Your task to perform on an android device: toggle improve location accuracy Image 0: 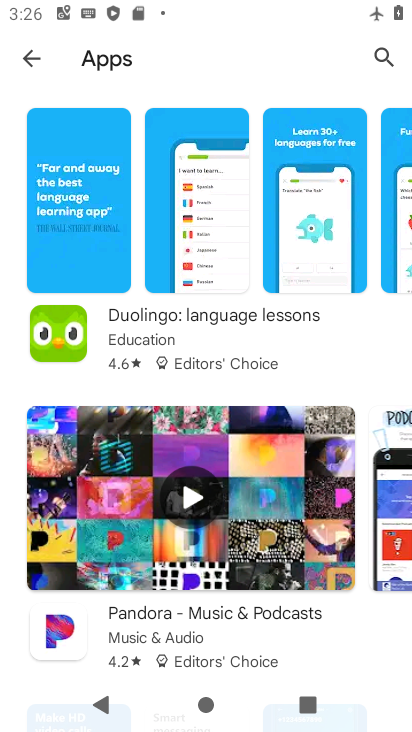
Step 0: press home button
Your task to perform on an android device: toggle improve location accuracy Image 1: 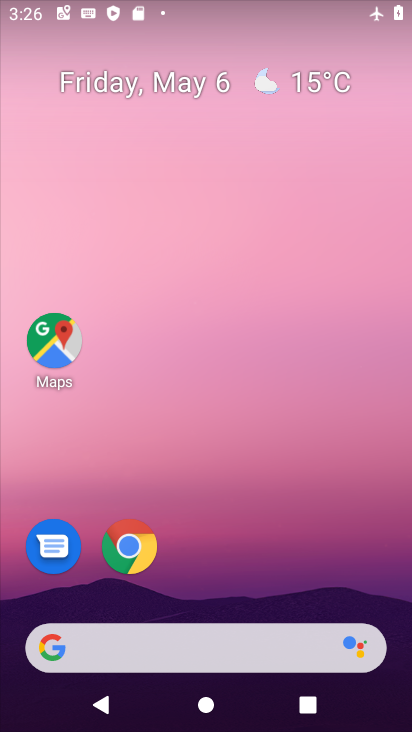
Step 1: drag from (230, 579) to (192, 96)
Your task to perform on an android device: toggle improve location accuracy Image 2: 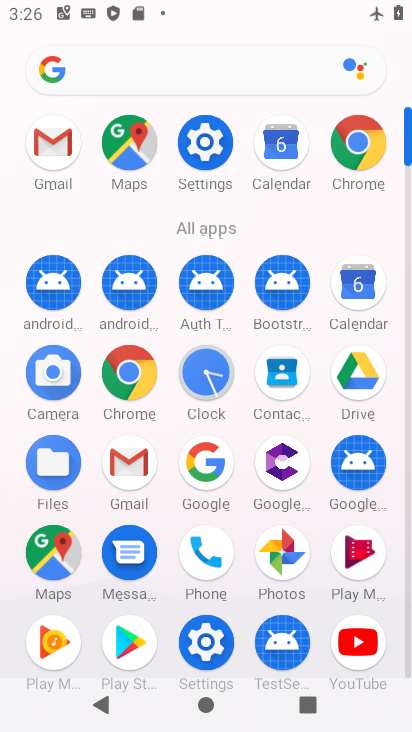
Step 2: click (198, 637)
Your task to perform on an android device: toggle improve location accuracy Image 3: 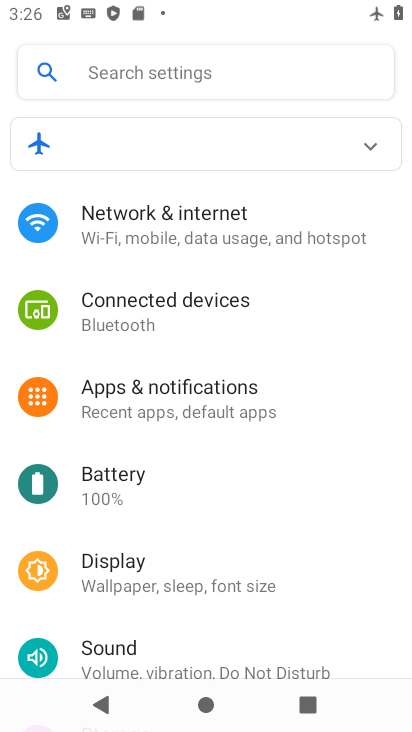
Step 3: drag from (230, 505) to (231, 265)
Your task to perform on an android device: toggle improve location accuracy Image 4: 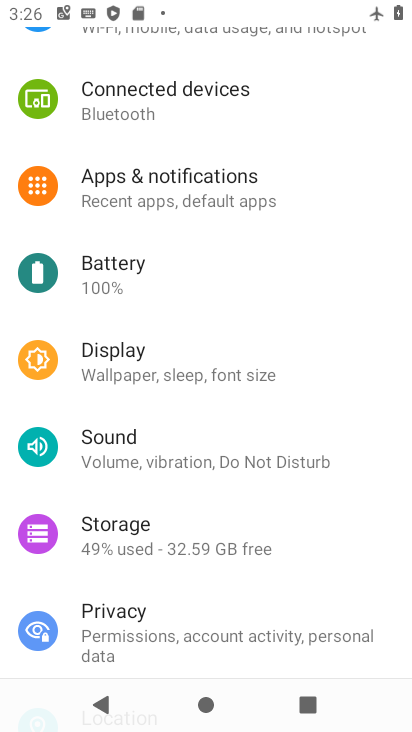
Step 4: drag from (267, 581) to (245, 219)
Your task to perform on an android device: toggle improve location accuracy Image 5: 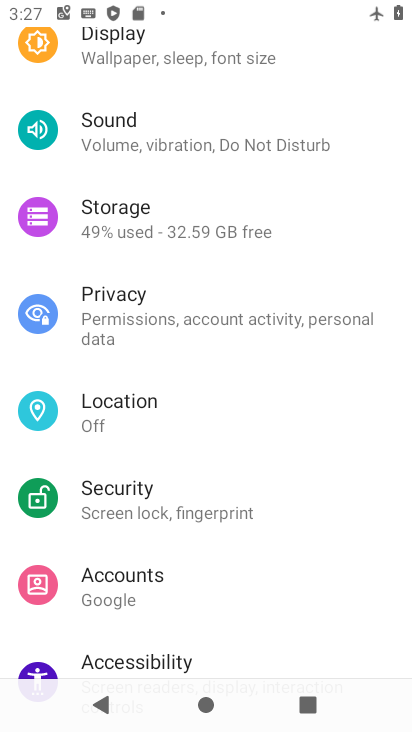
Step 5: click (239, 404)
Your task to perform on an android device: toggle improve location accuracy Image 6: 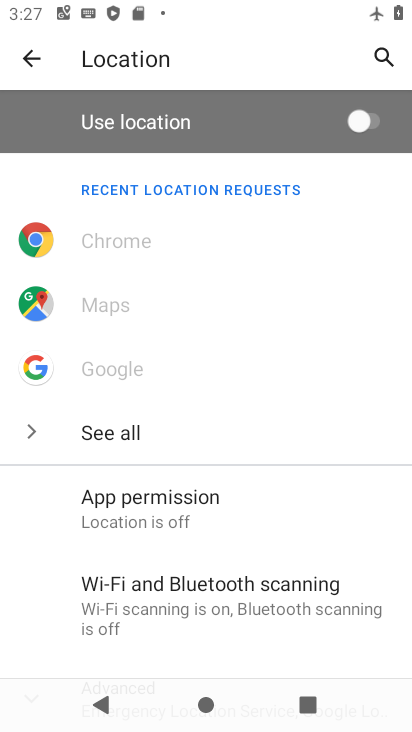
Step 6: drag from (260, 568) to (224, 205)
Your task to perform on an android device: toggle improve location accuracy Image 7: 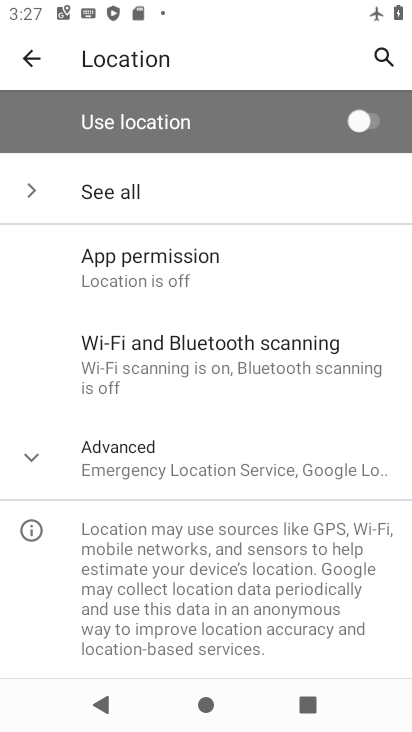
Step 7: click (288, 462)
Your task to perform on an android device: toggle improve location accuracy Image 8: 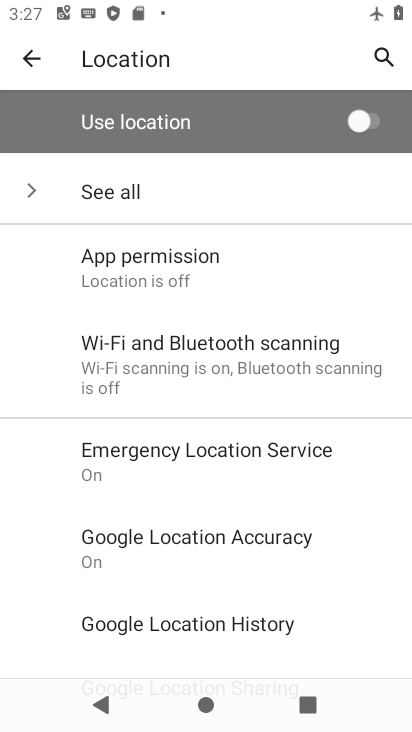
Step 8: drag from (336, 584) to (314, 273)
Your task to perform on an android device: toggle improve location accuracy Image 9: 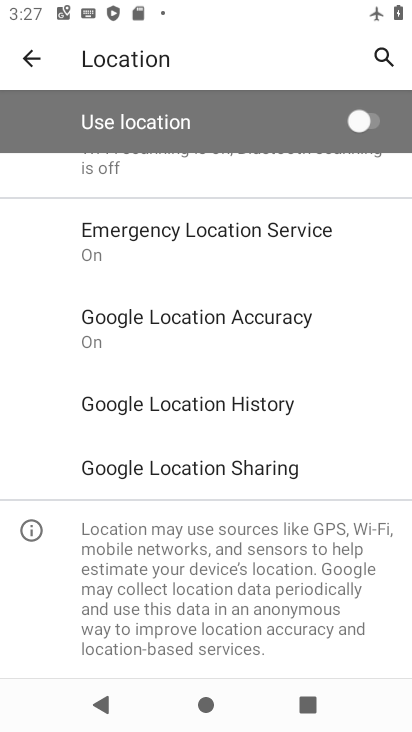
Step 9: click (318, 323)
Your task to perform on an android device: toggle improve location accuracy Image 10: 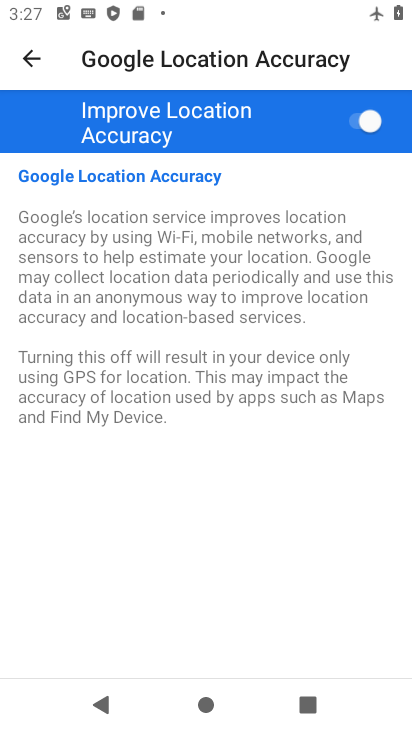
Step 10: click (360, 135)
Your task to perform on an android device: toggle improve location accuracy Image 11: 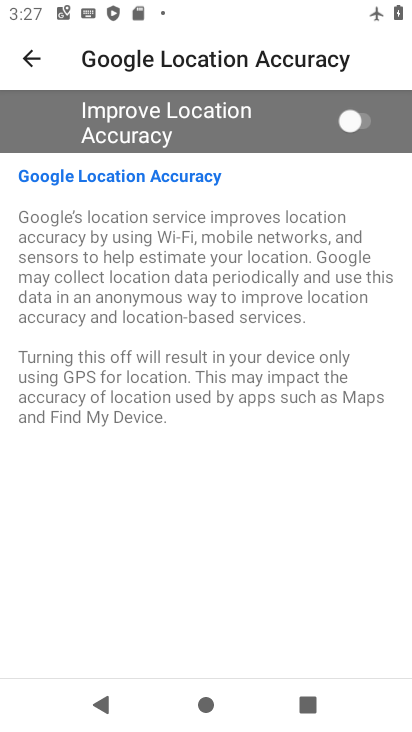
Step 11: task complete